Your task to perform on an android device: Go to network settings Image 0: 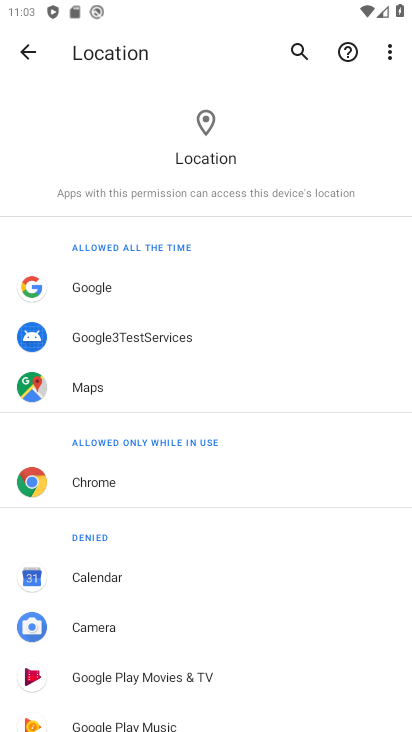
Step 0: press home button
Your task to perform on an android device: Go to network settings Image 1: 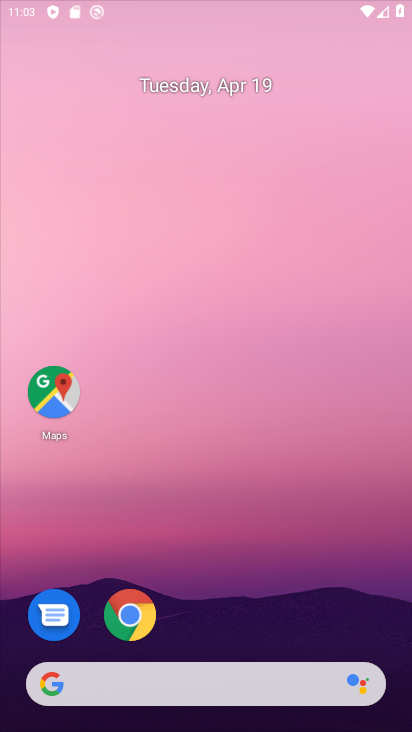
Step 1: drag from (249, 586) to (251, 177)
Your task to perform on an android device: Go to network settings Image 2: 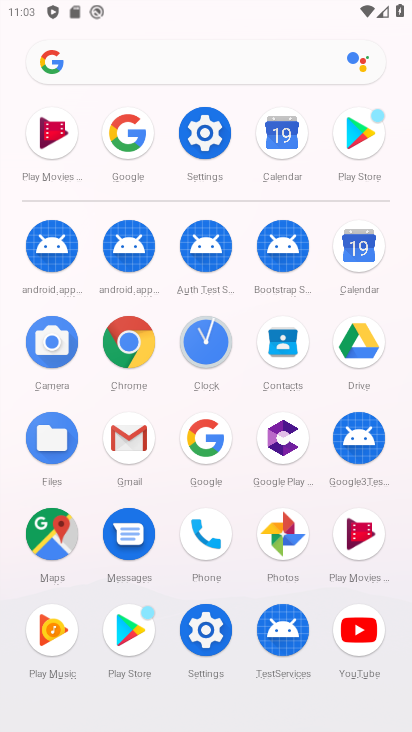
Step 2: click (203, 136)
Your task to perform on an android device: Go to network settings Image 3: 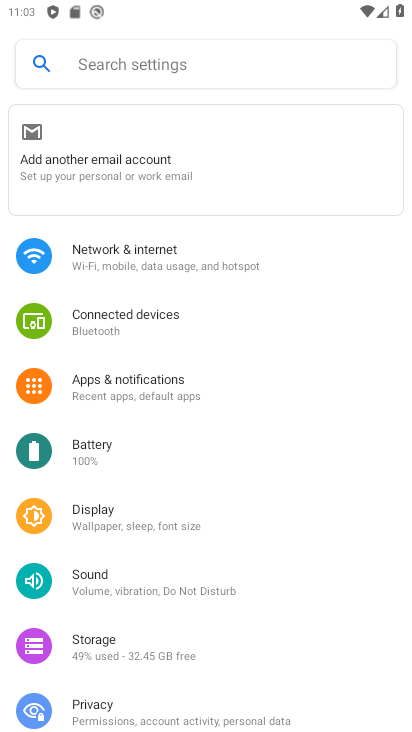
Step 3: click (159, 256)
Your task to perform on an android device: Go to network settings Image 4: 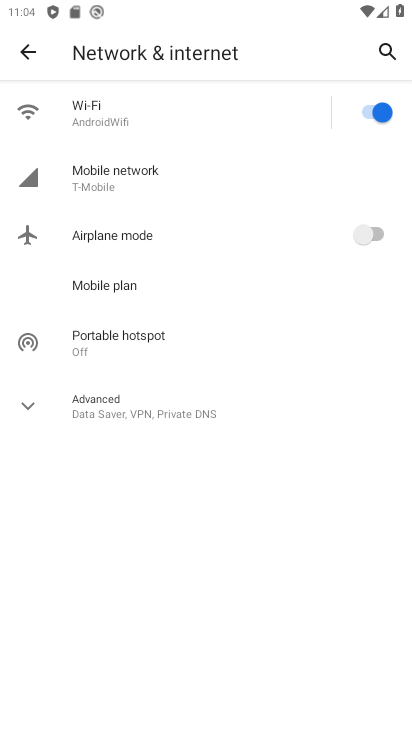
Step 4: click (134, 116)
Your task to perform on an android device: Go to network settings Image 5: 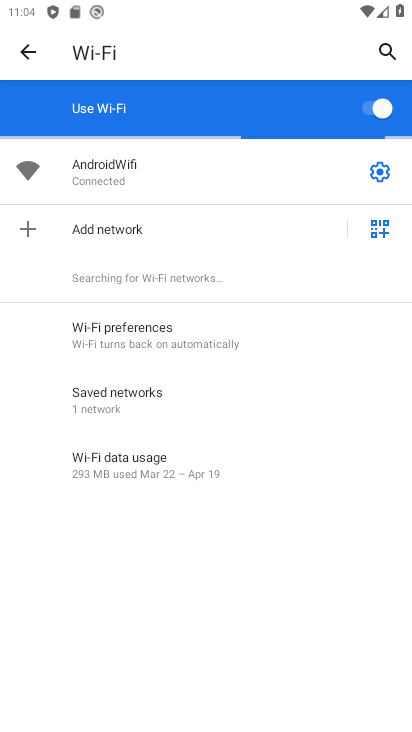
Step 5: click (10, 54)
Your task to perform on an android device: Go to network settings Image 6: 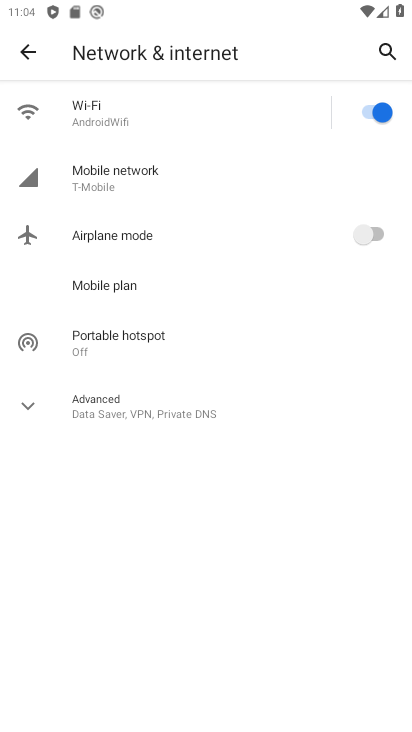
Step 6: click (139, 180)
Your task to perform on an android device: Go to network settings Image 7: 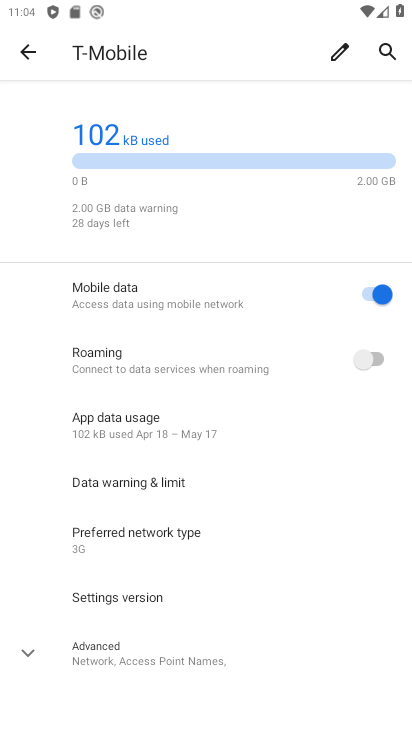
Step 7: task complete